Your task to perform on an android device: Open Reddit.com Image 0: 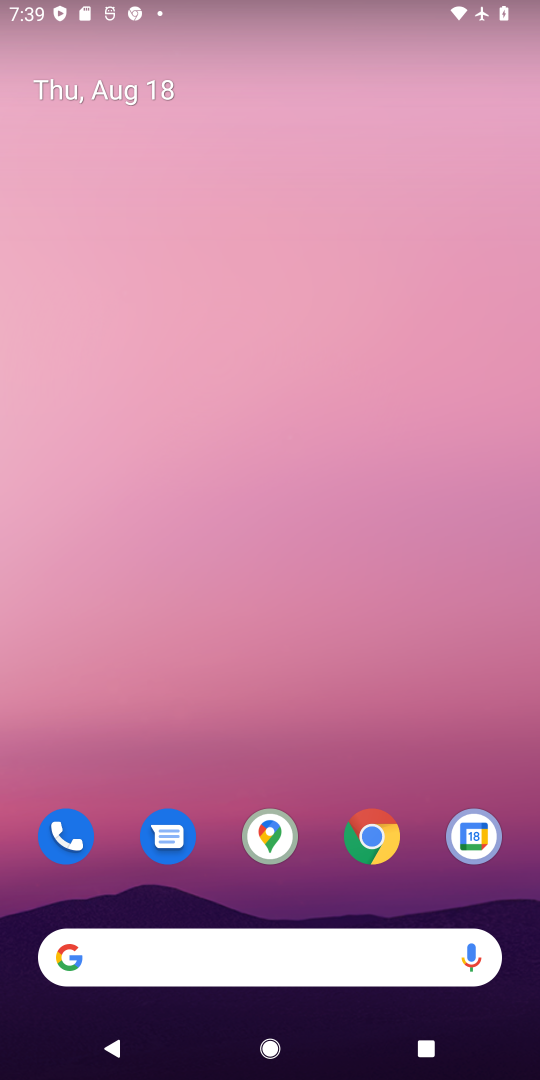
Step 0: drag from (323, 719) to (201, 35)
Your task to perform on an android device: Open Reddit.com Image 1: 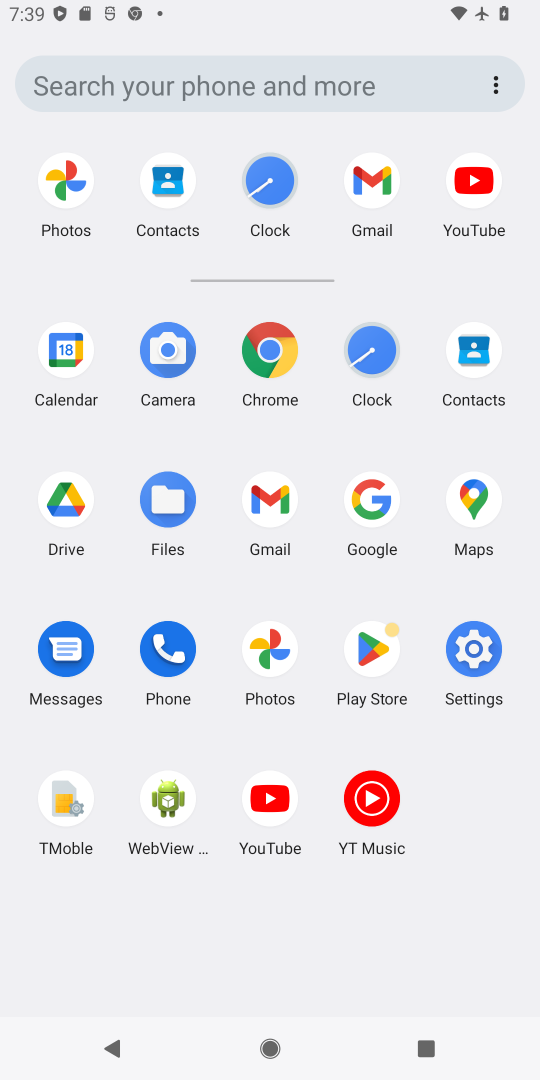
Step 1: click (268, 348)
Your task to perform on an android device: Open Reddit.com Image 2: 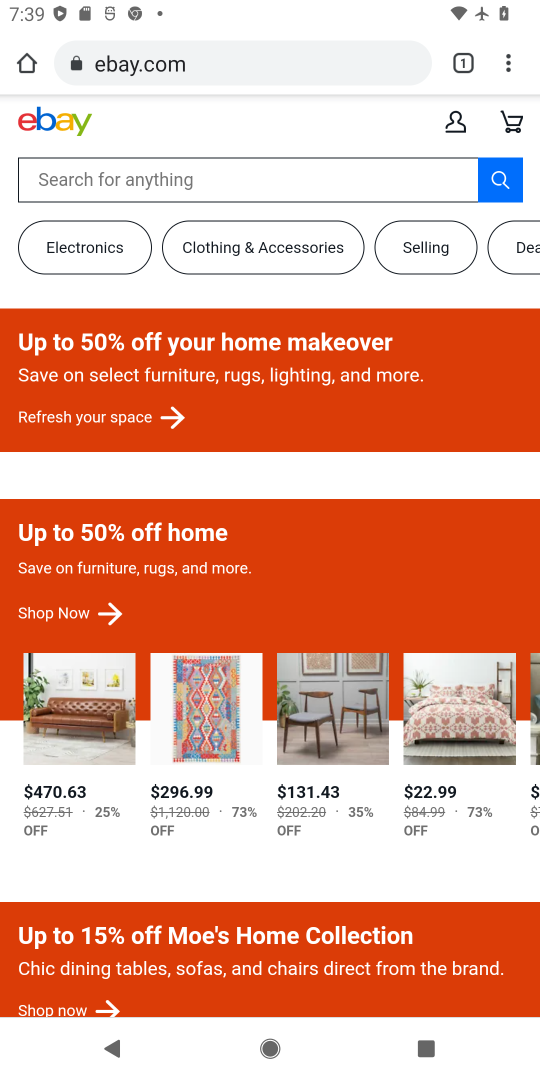
Step 2: click (286, 58)
Your task to perform on an android device: Open Reddit.com Image 3: 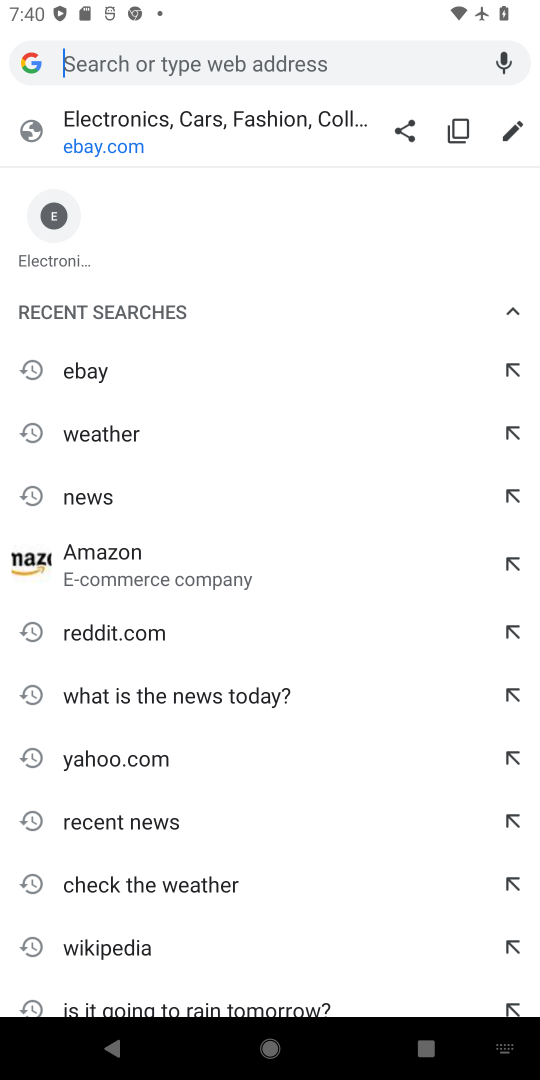
Step 3: type "reddit.com"
Your task to perform on an android device: Open Reddit.com Image 4: 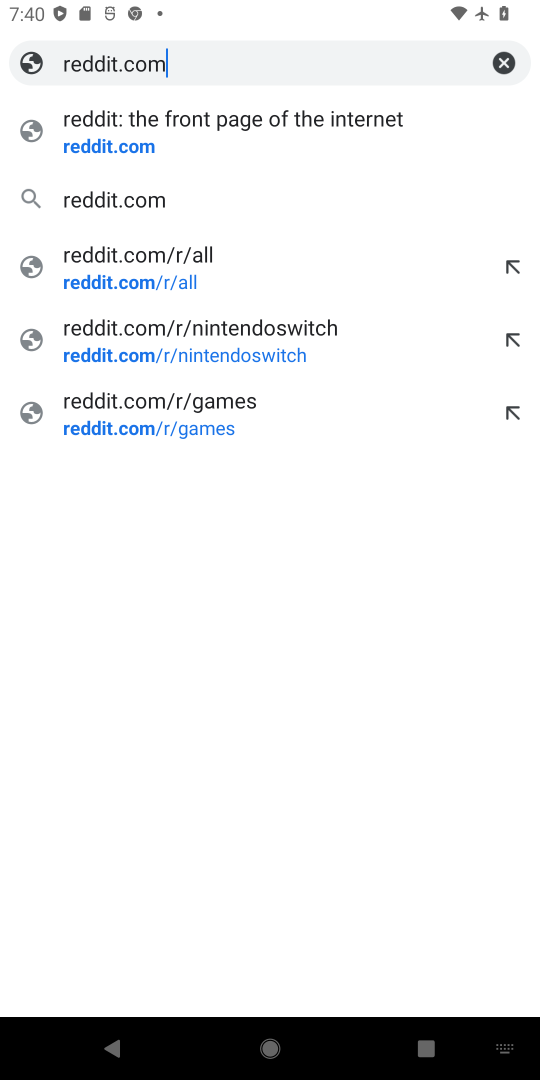
Step 4: click (138, 149)
Your task to perform on an android device: Open Reddit.com Image 5: 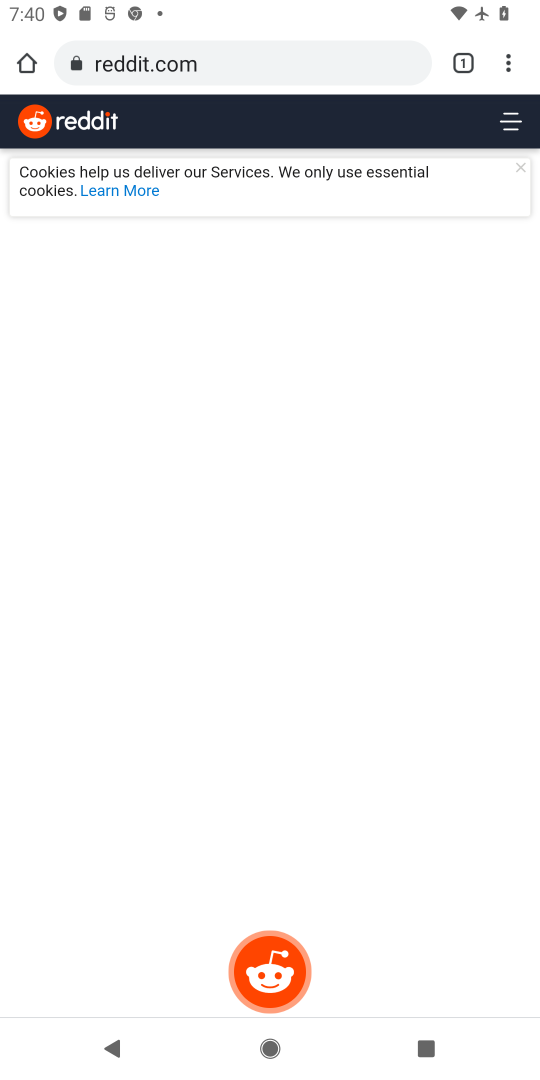
Step 5: task complete